Your task to perform on an android device: turn off smart reply in the gmail app Image 0: 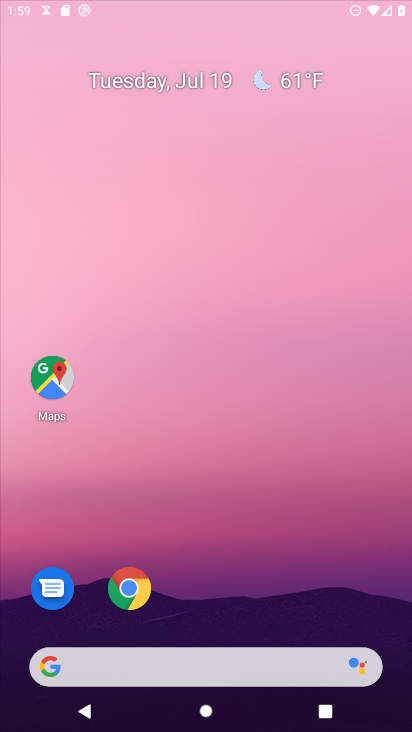
Step 0: drag from (285, 682) to (295, 174)
Your task to perform on an android device: turn off smart reply in the gmail app Image 1: 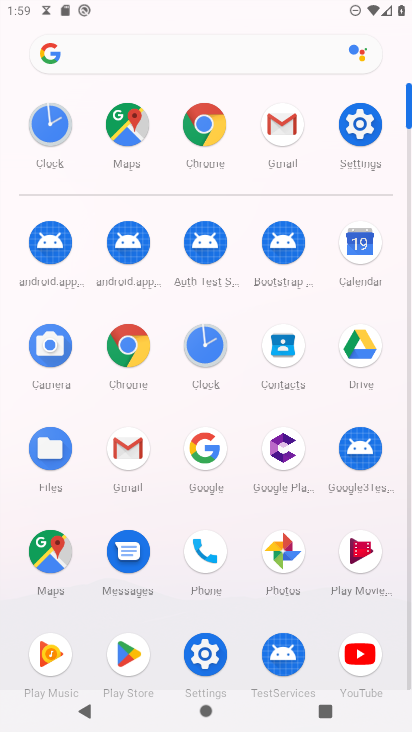
Step 1: click (130, 454)
Your task to perform on an android device: turn off smart reply in the gmail app Image 2: 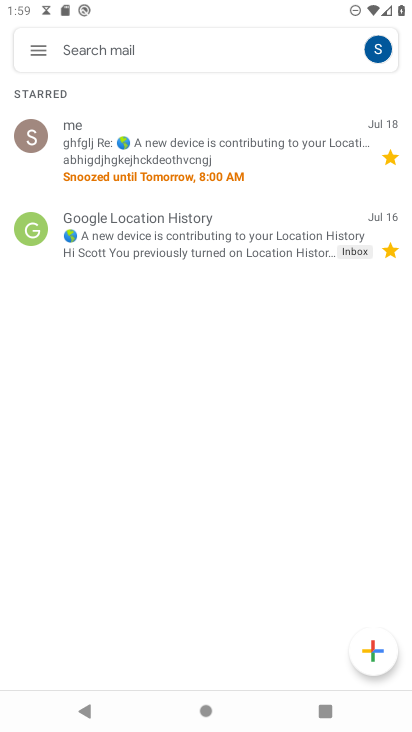
Step 2: click (31, 53)
Your task to perform on an android device: turn off smart reply in the gmail app Image 3: 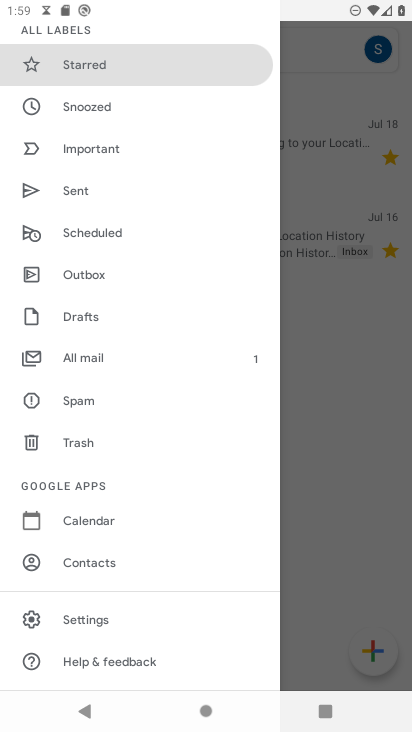
Step 3: click (126, 621)
Your task to perform on an android device: turn off smart reply in the gmail app Image 4: 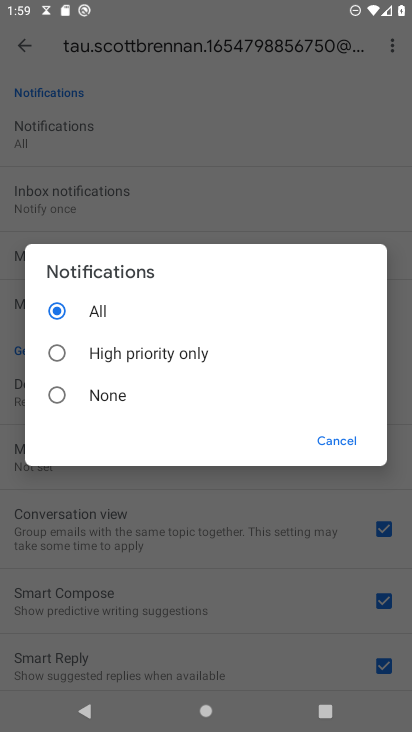
Step 4: click (344, 436)
Your task to perform on an android device: turn off smart reply in the gmail app Image 5: 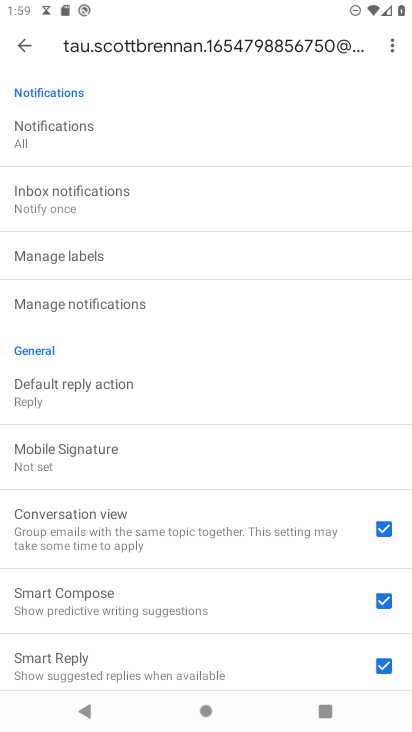
Step 5: drag from (225, 602) to (225, 402)
Your task to perform on an android device: turn off smart reply in the gmail app Image 6: 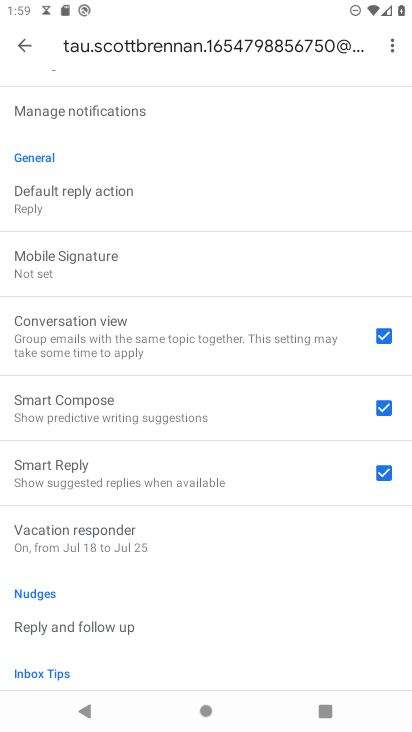
Step 6: click (248, 482)
Your task to perform on an android device: turn off smart reply in the gmail app Image 7: 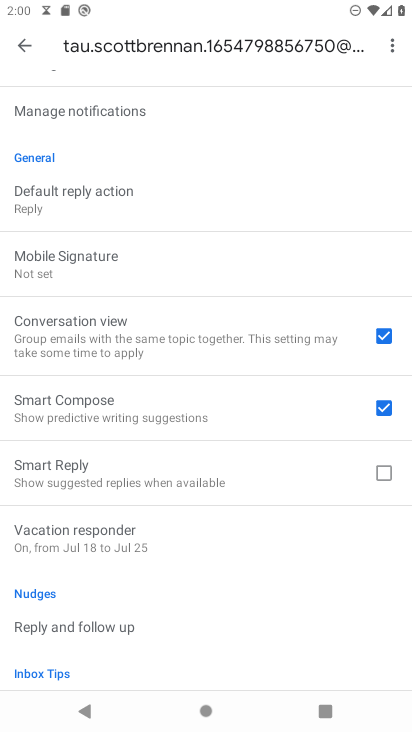
Step 7: task complete